Your task to perform on an android device: Open Google Chrome and click the shortcut for Amazon.com Image 0: 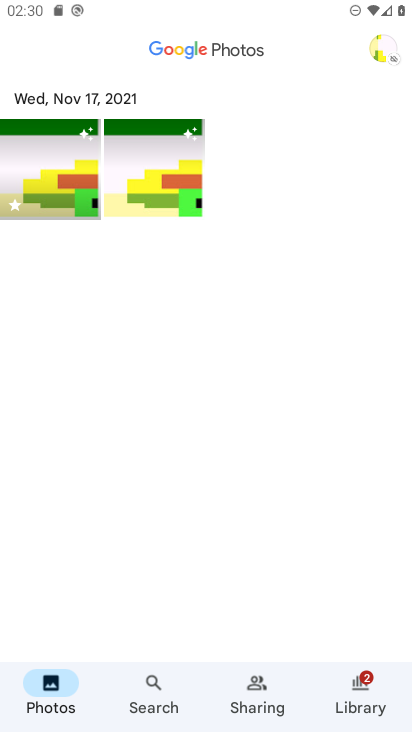
Step 0: press home button
Your task to perform on an android device: Open Google Chrome and click the shortcut for Amazon.com Image 1: 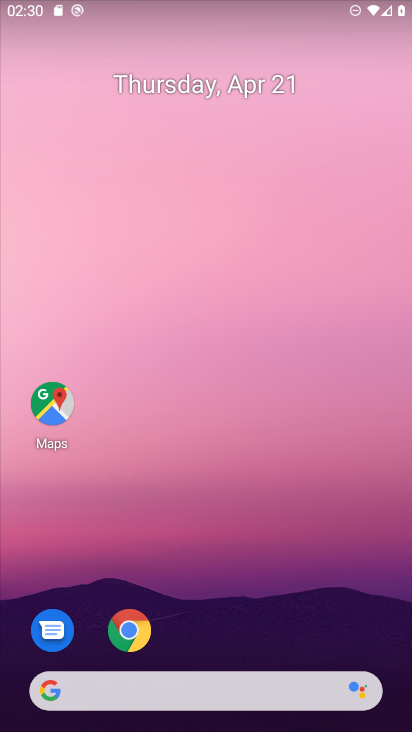
Step 1: click (125, 620)
Your task to perform on an android device: Open Google Chrome and click the shortcut for Amazon.com Image 2: 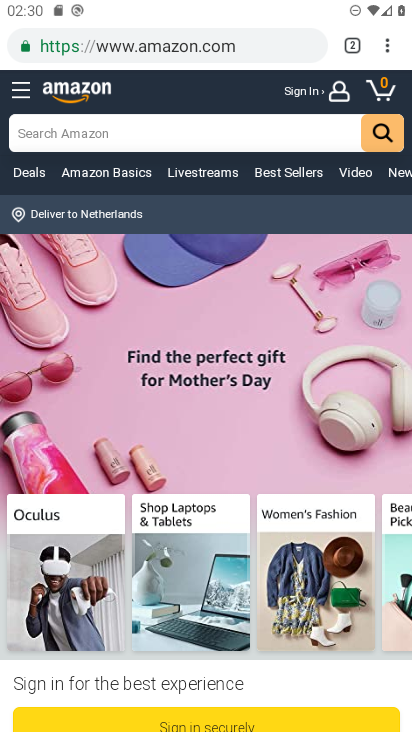
Step 2: task complete